Your task to perform on an android device: Turn on the flashlight Image 0: 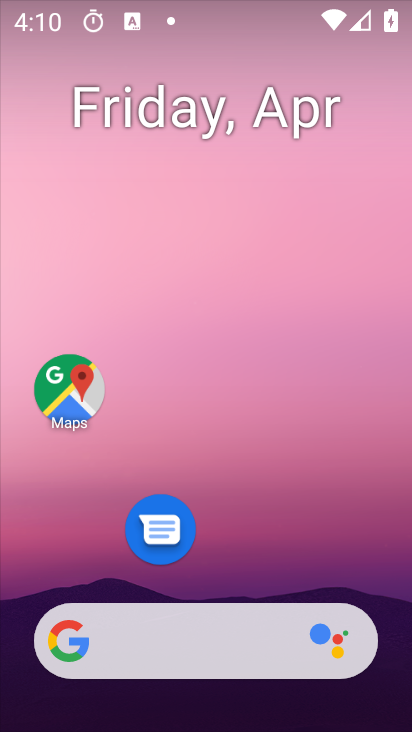
Step 0: drag from (251, 596) to (239, 126)
Your task to perform on an android device: Turn on the flashlight Image 1: 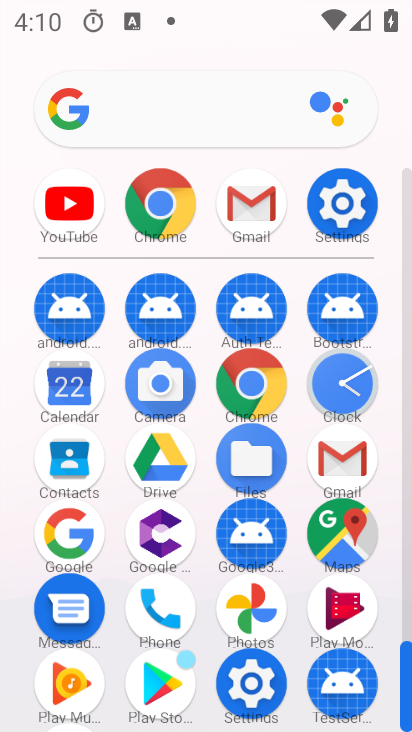
Step 1: task complete